Your task to perform on an android device: Open Google Chrome Image 0: 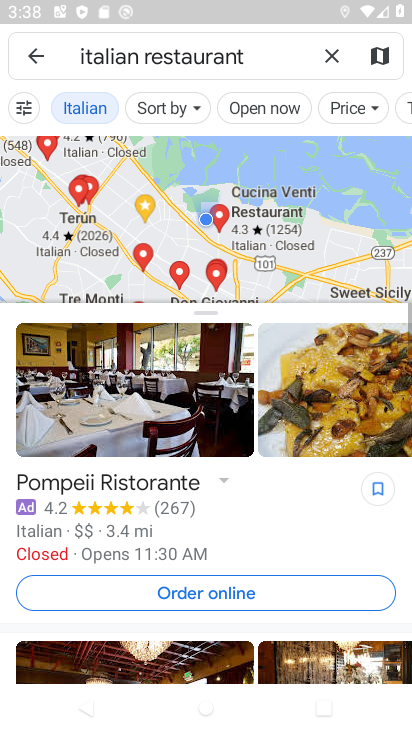
Step 0: press home button
Your task to perform on an android device: Open Google Chrome Image 1: 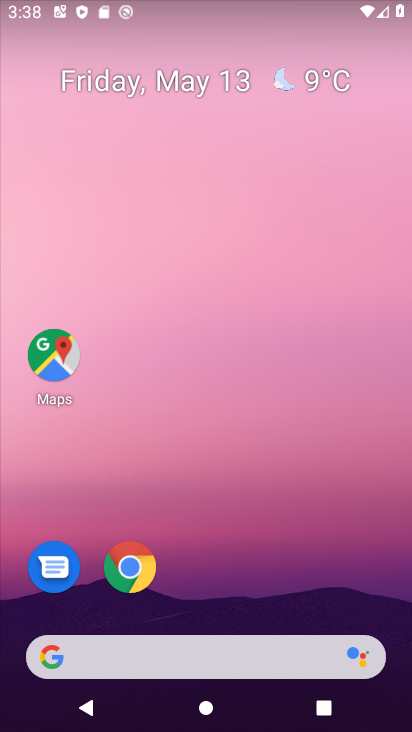
Step 1: click (128, 568)
Your task to perform on an android device: Open Google Chrome Image 2: 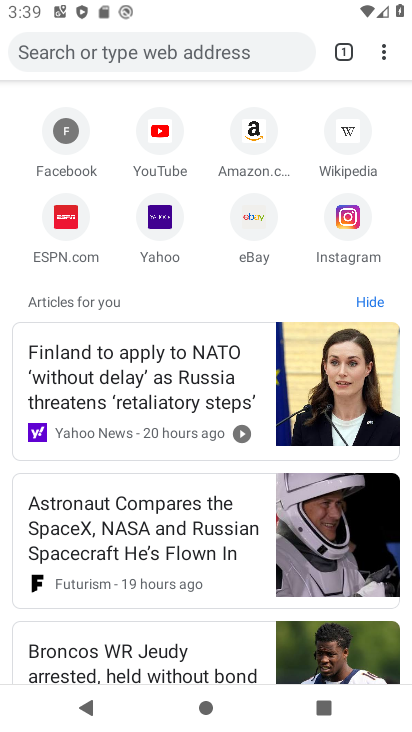
Step 2: task complete